Your task to perform on an android device: turn off notifications in google photos Image 0: 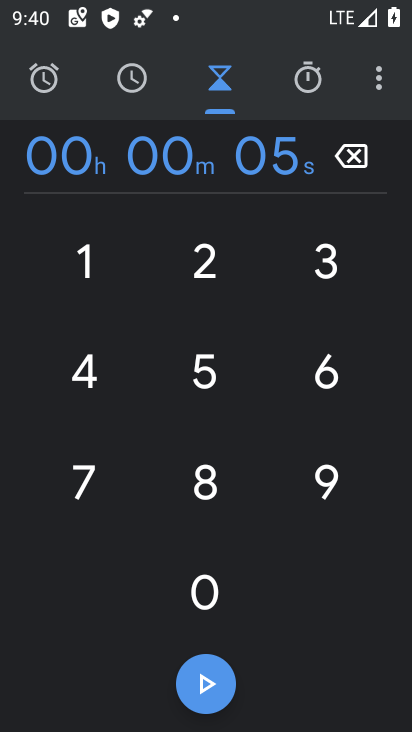
Step 0: press home button
Your task to perform on an android device: turn off notifications in google photos Image 1: 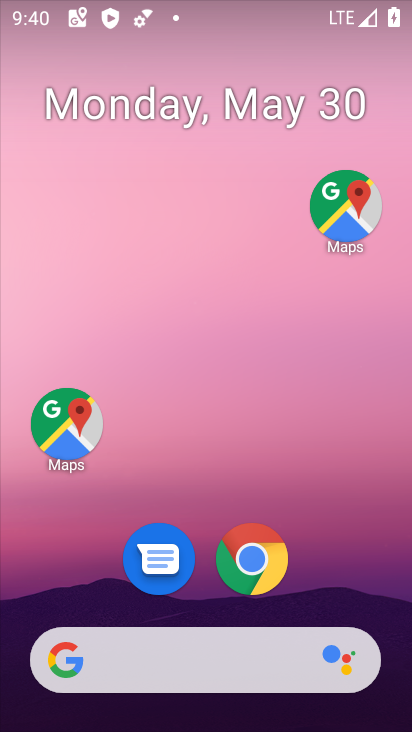
Step 1: drag from (308, 420) to (266, 103)
Your task to perform on an android device: turn off notifications in google photos Image 2: 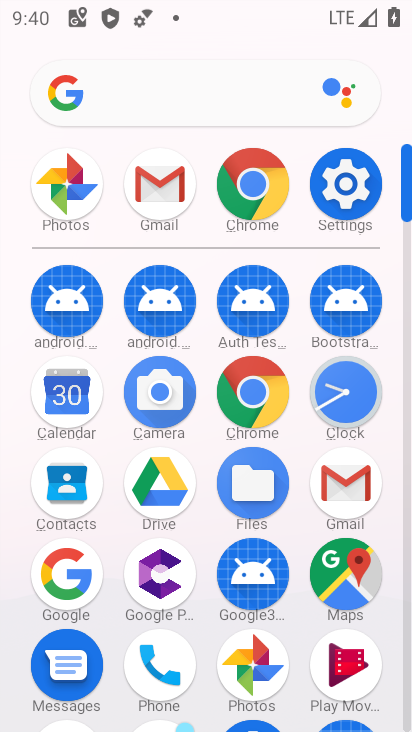
Step 2: click (260, 666)
Your task to perform on an android device: turn off notifications in google photos Image 3: 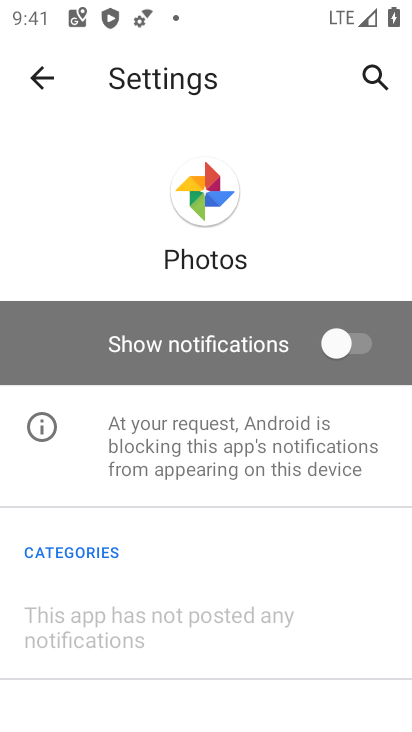
Step 3: task complete